Your task to perform on an android device: add a label to a message in the gmail app Image 0: 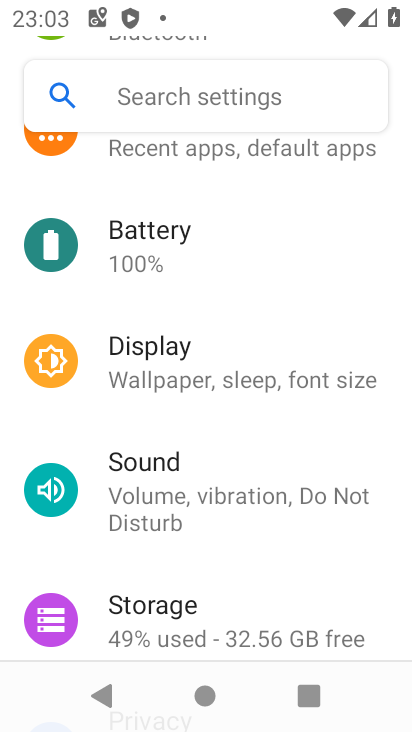
Step 0: drag from (260, 610) to (320, 2)
Your task to perform on an android device: add a label to a message in the gmail app Image 1: 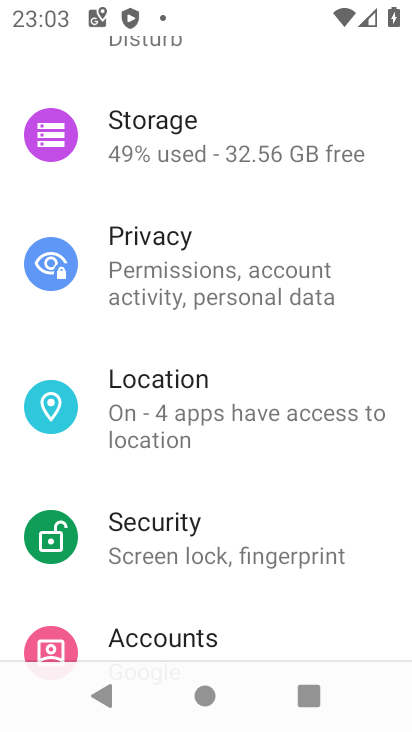
Step 1: drag from (277, 543) to (366, 17)
Your task to perform on an android device: add a label to a message in the gmail app Image 2: 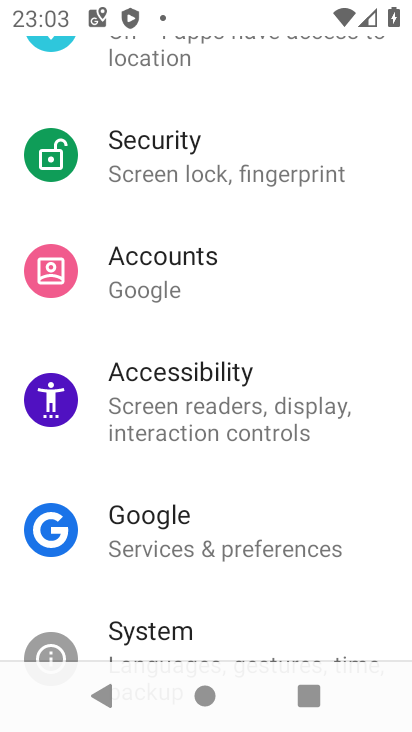
Step 2: press home button
Your task to perform on an android device: add a label to a message in the gmail app Image 3: 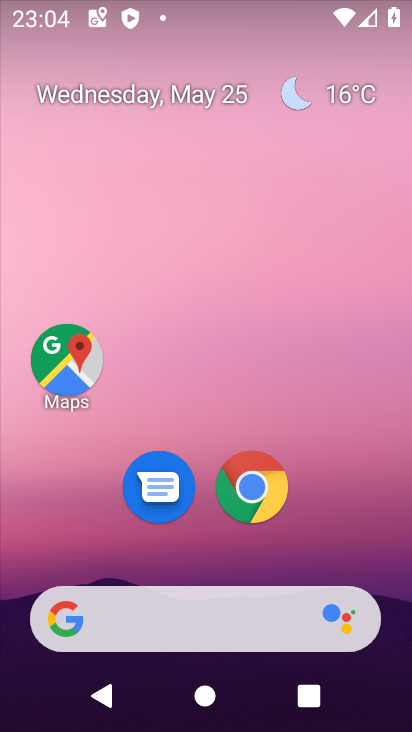
Step 3: drag from (157, 716) to (138, 23)
Your task to perform on an android device: add a label to a message in the gmail app Image 4: 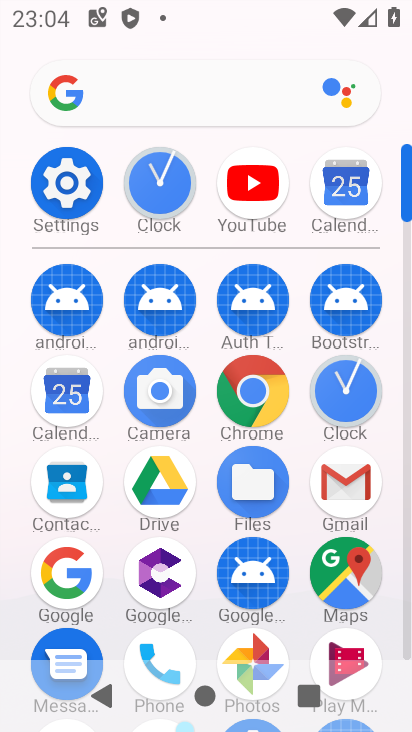
Step 4: click (341, 488)
Your task to perform on an android device: add a label to a message in the gmail app Image 5: 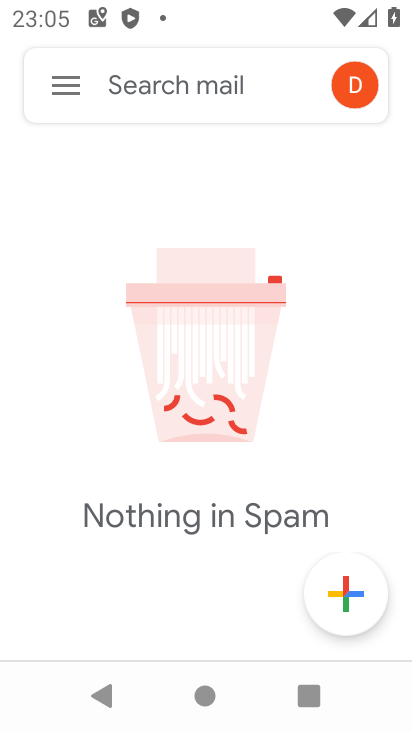
Step 5: click (76, 80)
Your task to perform on an android device: add a label to a message in the gmail app Image 6: 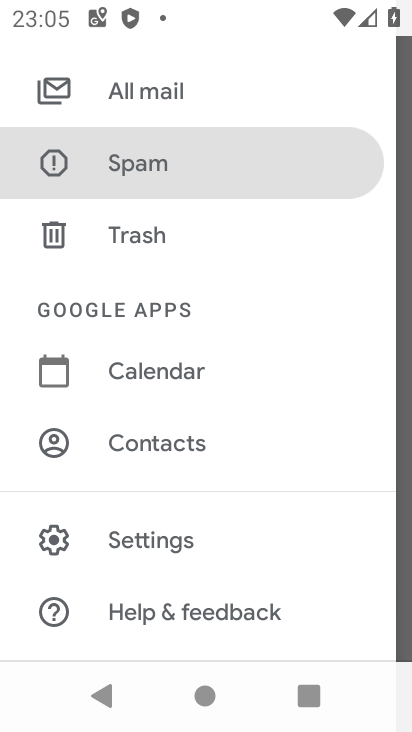
Step 6: click (217, 84)
Your task to perform on an android device: add a label to a message in the gmail app Image 7: 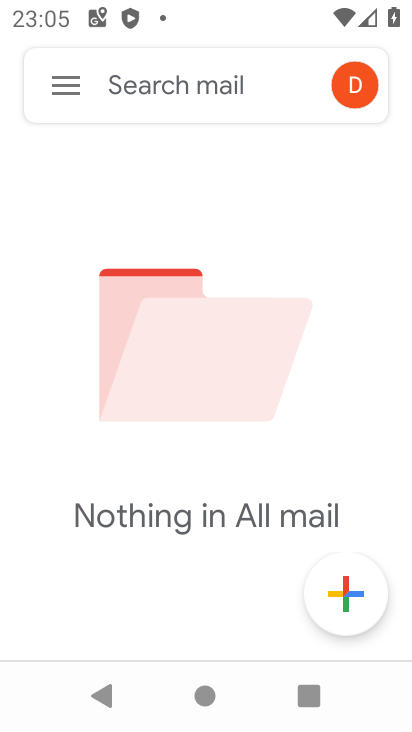
Step 7: task complete